Your task to perform on an android device: Go to Android settings Image 0: 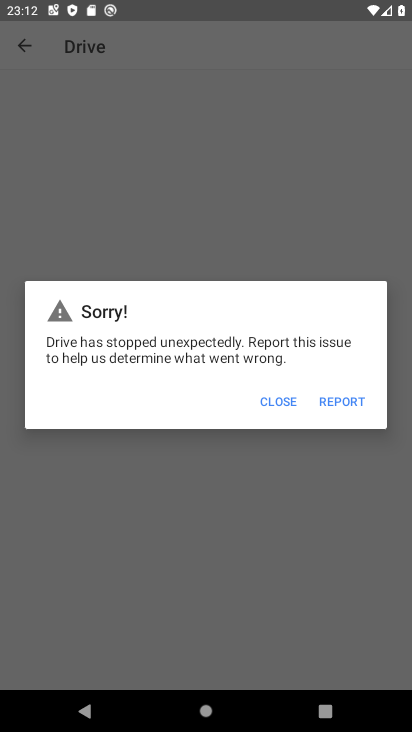
Step 0: press home button
Your task to perform on an android device: Go to Android settings Image 1: 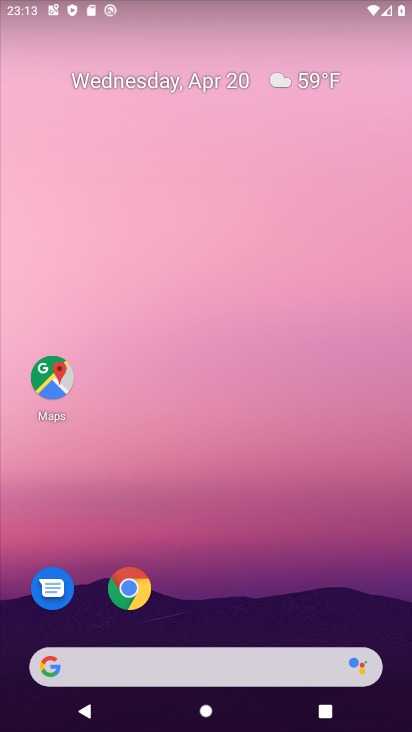
Step 1: drag from (228, 719) to (227, 90)
Your task to perform on an android device: Go to Android settings Image 2: 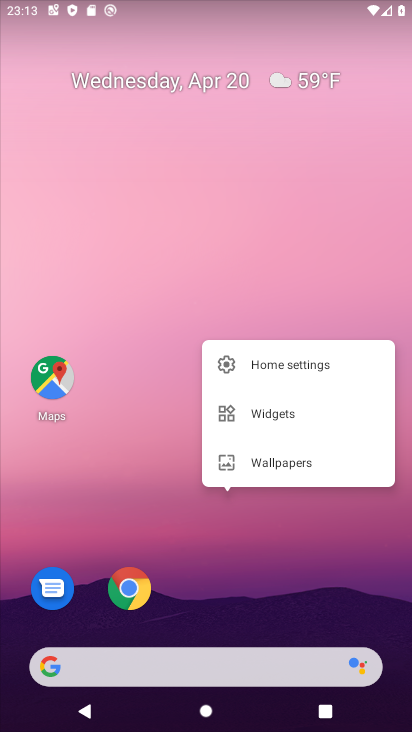
Step 2: click (195, 255)
Your task to perform on an android device: Go to Android settings Image 3: 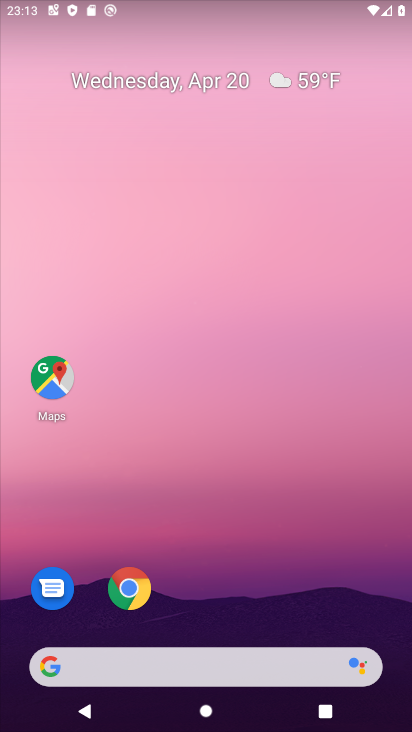
Step 3: drag from (217, 726) to (220, 118)
Your task to perform on an android device: Go to Android settings Image 4: 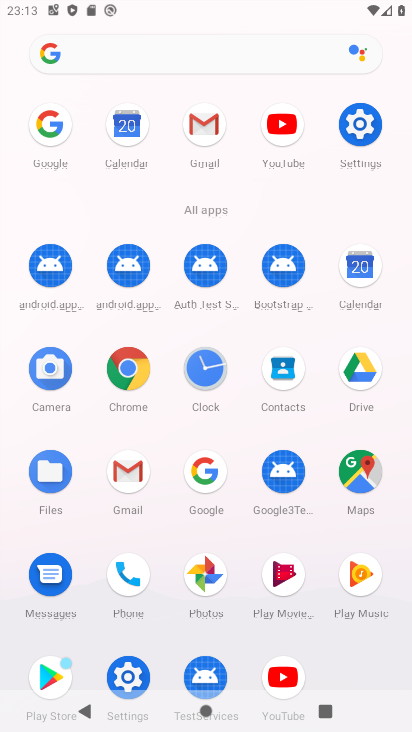
Step 4: click (356, 131)
Your task to perform on an android device: Go to Android settings Image 5: 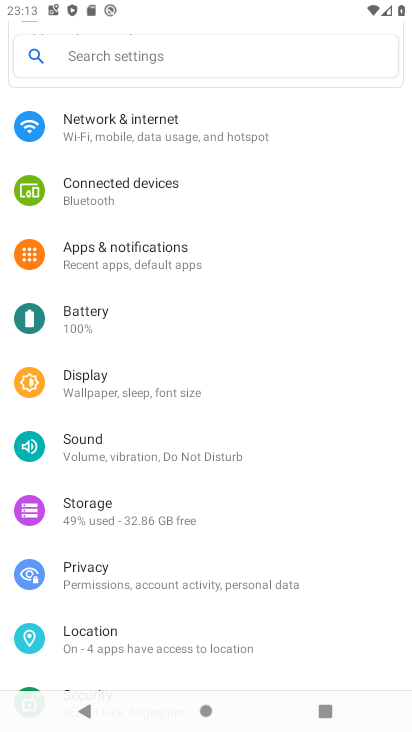
Step 5: task complete